Your task to perform on an android device: turn off priority inbox in the gmail app Image 0: 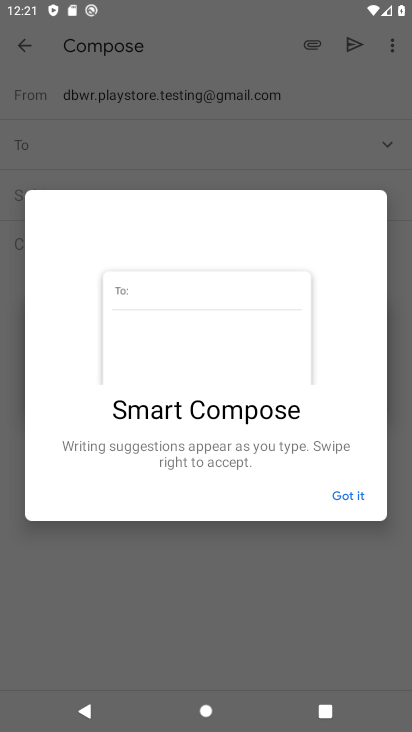
Step 0: drag from (211, 622) to (360, 16)
Your task to perform on an android device: turn off priority inbox in the gmail app Image 1: 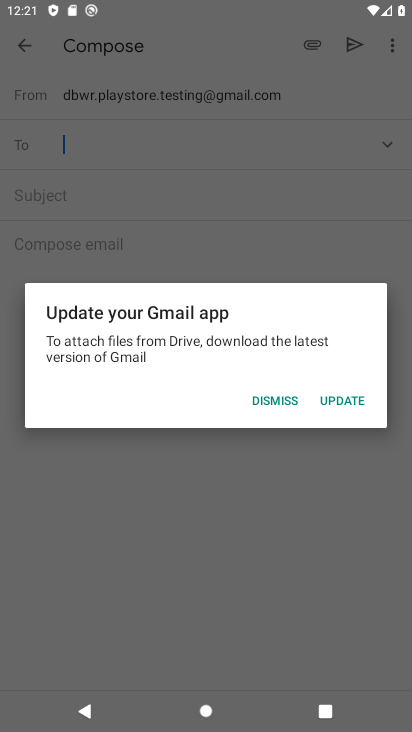
Step 1: drag from (272, 520) to (397, 4)
Your task to perform on an android device: turn off priority inbox in the gmail app Image 2: 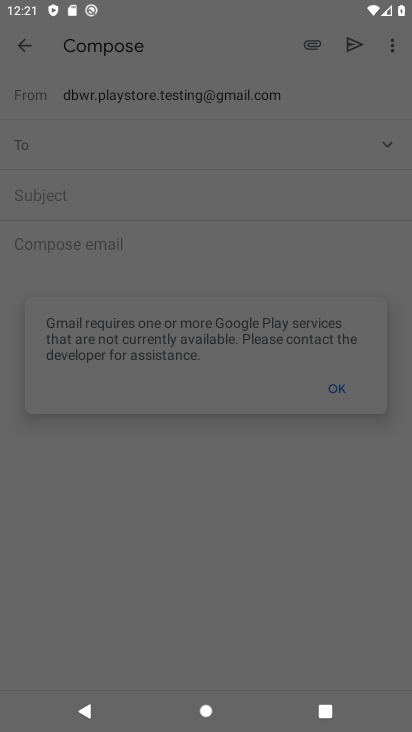
Step 2: drag from (294, 494) to (396, 3)
Your task to perform on an android device: turn off priority inbox in the gmail app Image 3: 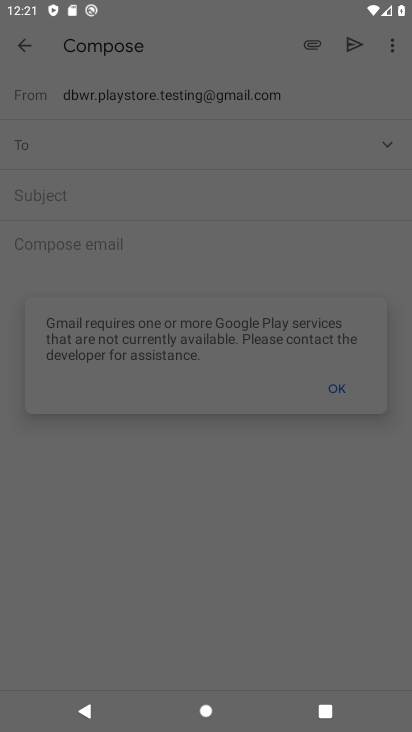
Step 3: press home button
Your task to perform on an android device: turn off priority inbox in the gmail app Image 4: 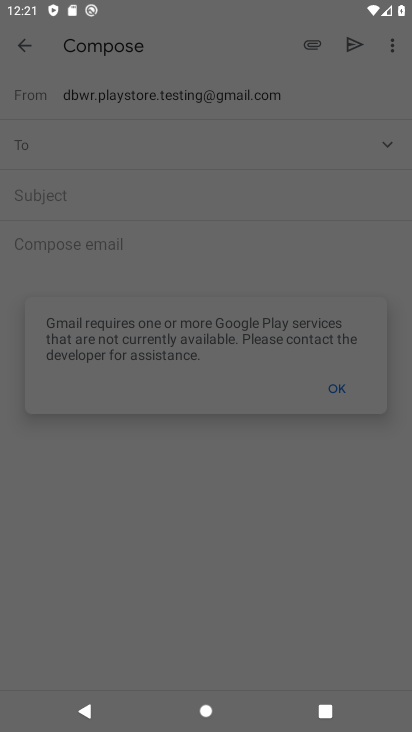
Step 4: click (320, 1)
Your task to perform on an android device: turn off priority inbox in the gmail app Image 5: 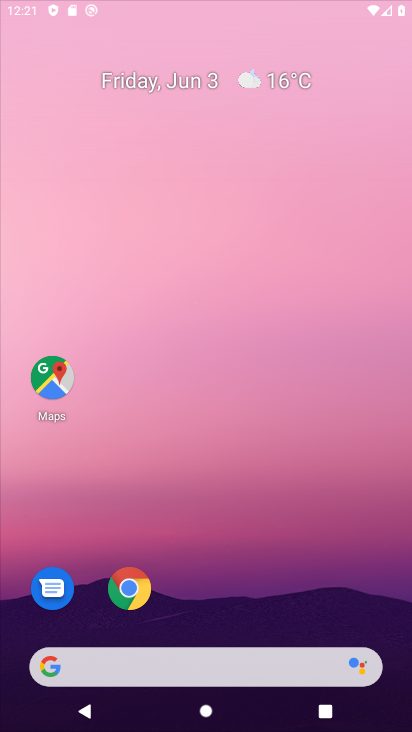
Step 5: press home button
Your task to perform on an android device: turn off priority inbox in the gmail app Image 6: 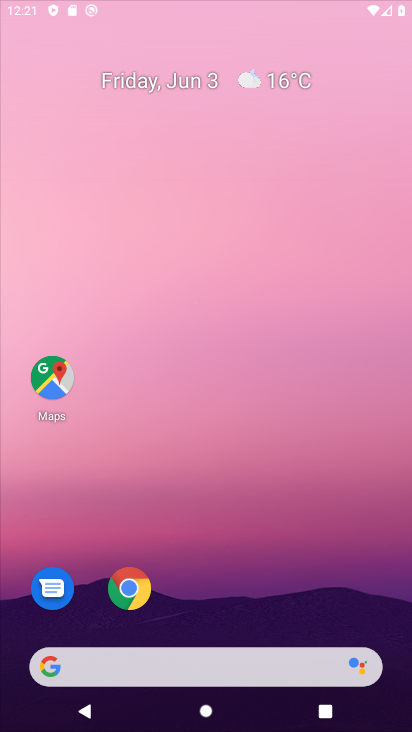
Step 6: click (253, 230)
Your task to perform on an android device: turn off priority inbox in the gmail app Image 7: 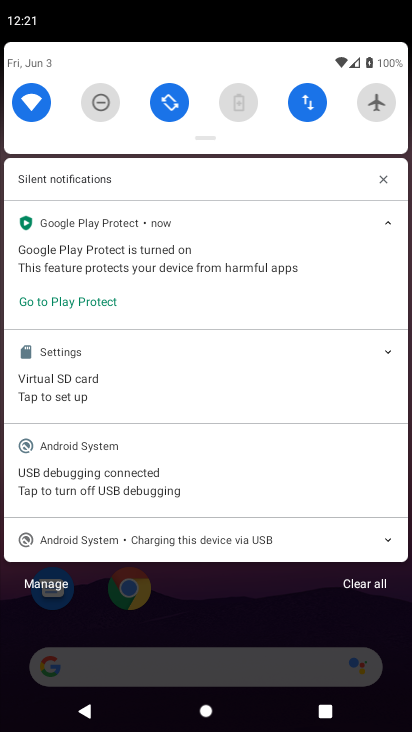
Step 7: press home button
Your task to perform on an android device: turn off priority inbox in the gmail app Image 8: 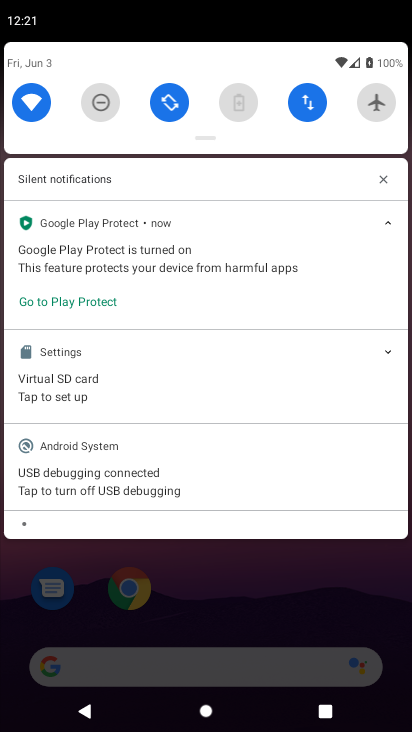
Step 8: click (344, 11)
Your task to perform on an android device: turn off priority inbox in the gmail app Image 9: 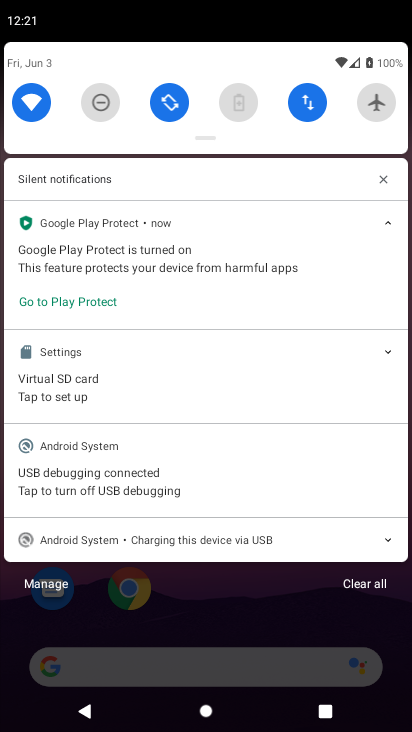
Step 9: click (355, 581)
Your task to perform on an android device: turn off priority inbox in the gmail app Image 10: 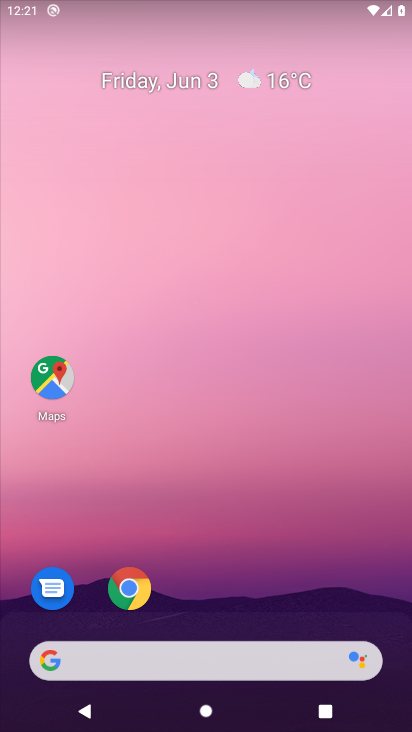
Step 10: drag from (229, 579) to (315, 11)
Your task to perform on an android device: turn off priority inbox in the gmail app Image 11: 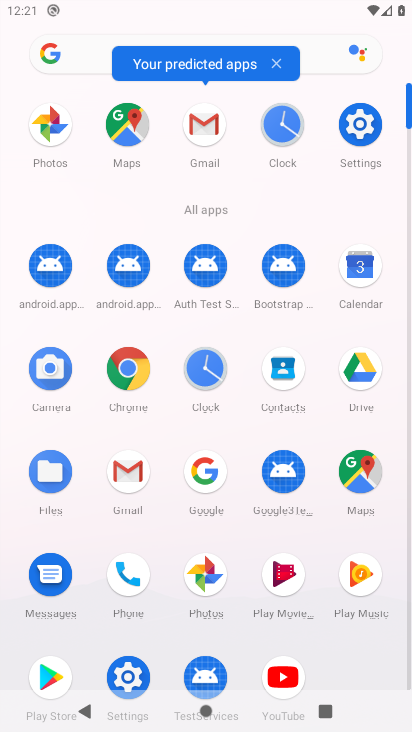
Step 11: drag from (240, 613) to (281, 5)
Your task to perform on an android device: turn off priority inbox in the gmail app Image 12: 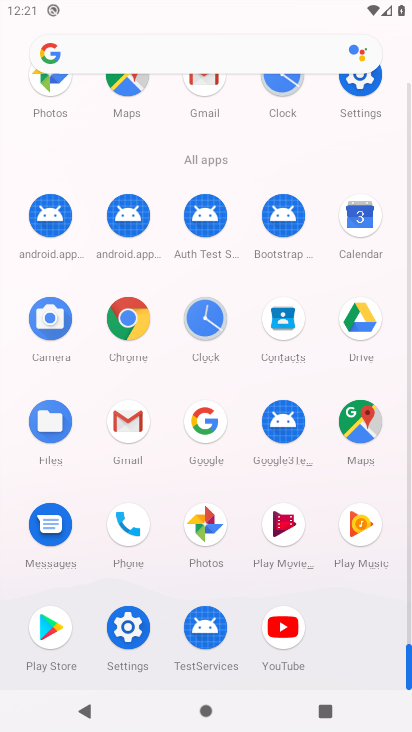
Step 12: click (109, 406)
Your task to perform on an android device: turn off priority inbox in the gmail app Image 13: 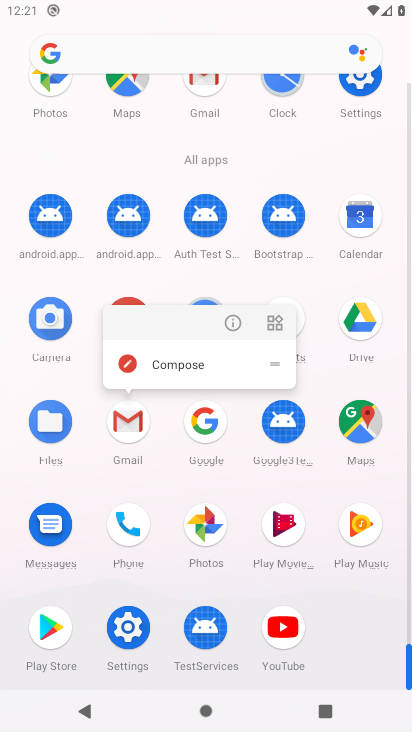
Step 13: click (243, 321)
Your task to perform on an android device: turn off priority inbox in the gmail app Image 14: 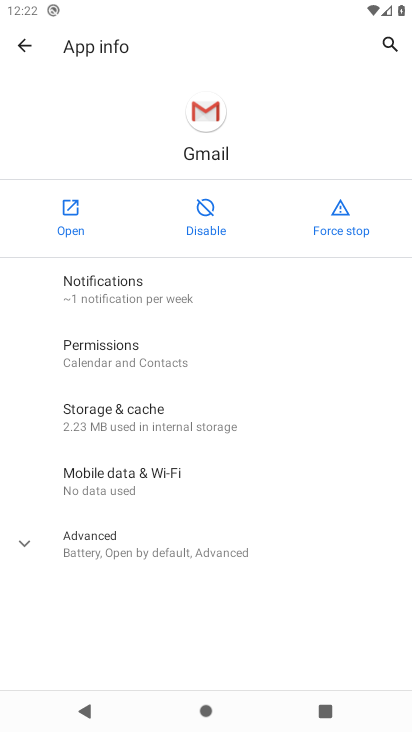
Step 14: click (68, 203)
Your task to perform on an android device: turn off priority inbox in the gmail app Image 15: 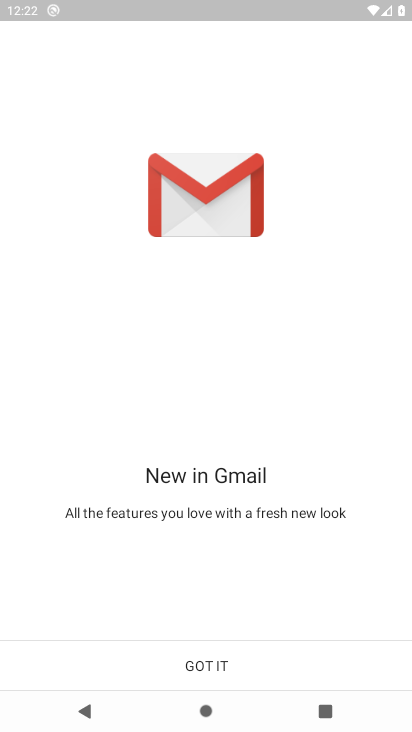
Step 15: click (265, 646)
Your task to perform on an android device: turn off priority inbox in the gmail app Image 16: 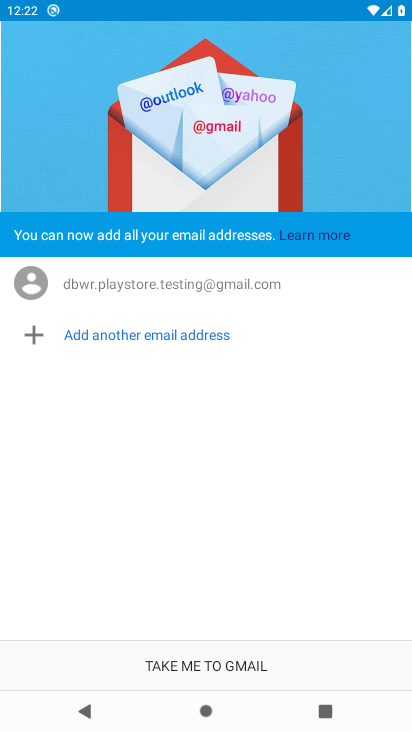
Step 16: click (187, 681)
Your task to perform on an android device: turn off priority inbox in the gmail app Image 17: 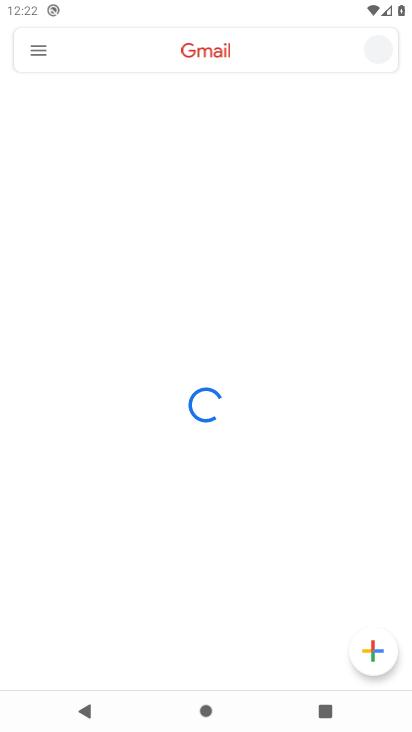
Step 17: click (29, 49)
Your task to perform on an android device: turn off priority inbox in the gmail app Image 18: 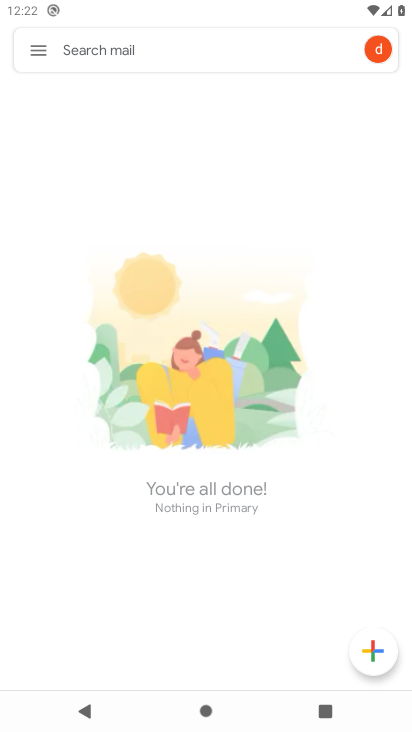
Step 18: click (30, 55)
Your task to perform on an android device: turn off priority inbox in the gmail app Image 19: 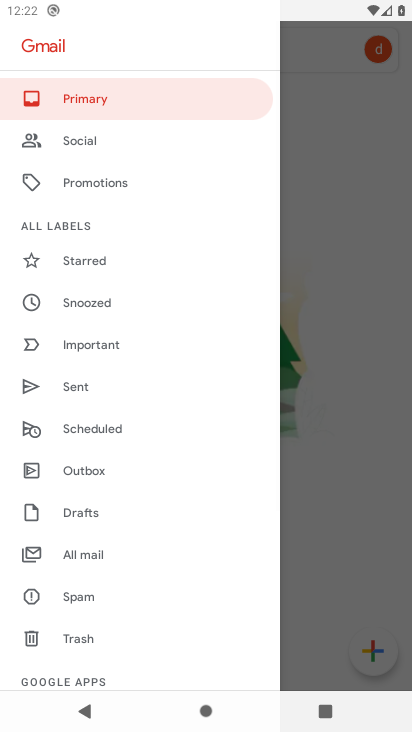
Step 19: drag from (94, 597) to (197, 148)
Your task to perform on an android device: turn off priority inbox in the gmail app Image 20: 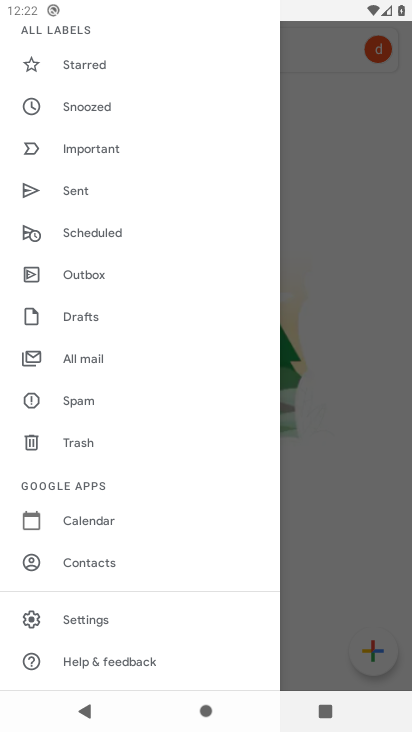
Step 20: click (149, 610)
Your task to perform on an android device: turn off priority inbox in the gmail app Image 21: 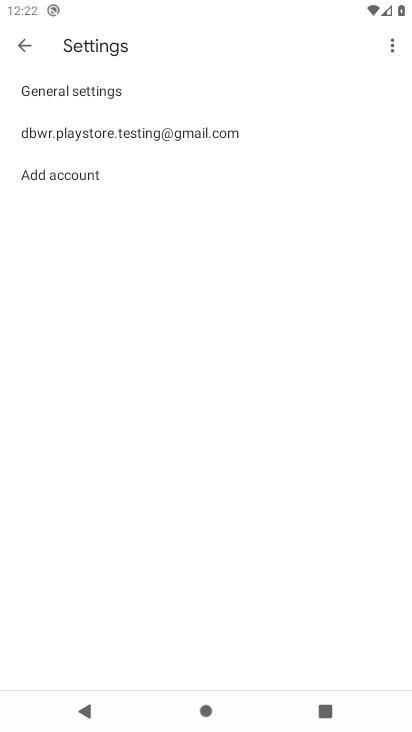
Step 21: click (175, 121)
Your task to perform on an android device: turn off priority inbox in the gmail app Image 22: 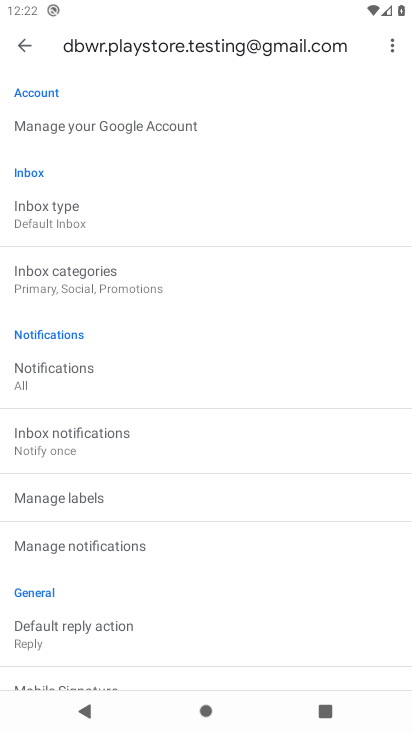
Step 22: click (120, 213)
Your task to perform on an android device: turn off priority inbox in the gmail app Image 23: 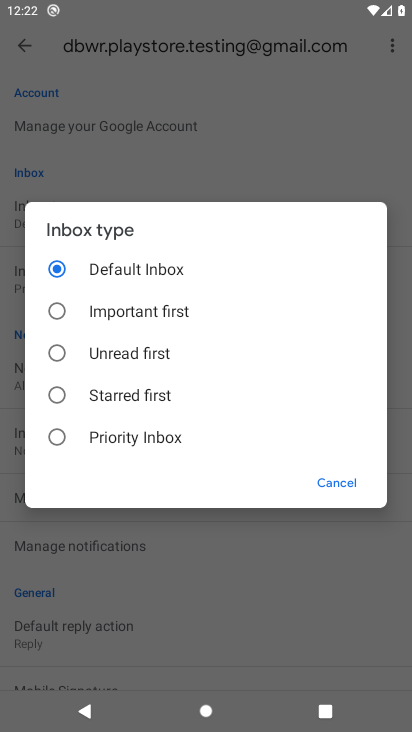
Step 23: task complete